Your task to perform on an android device: Open maps Image 0: 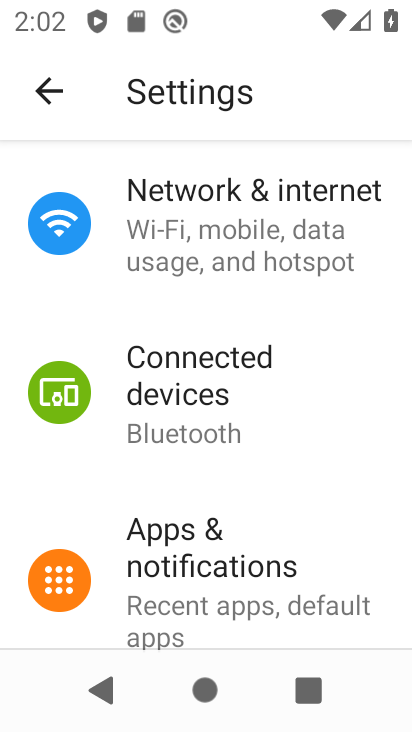
Step 0: press home button
Your task to perform on an android device: Open maps Image 1: 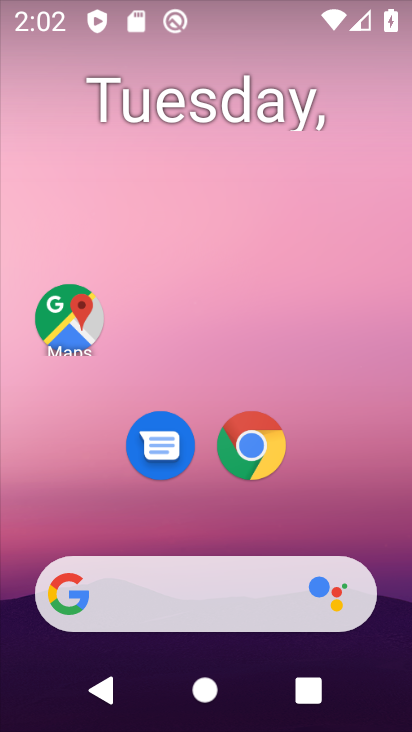
Step 1: click (45, 324)
Your task to perform on an android device: Open maps Image 2: 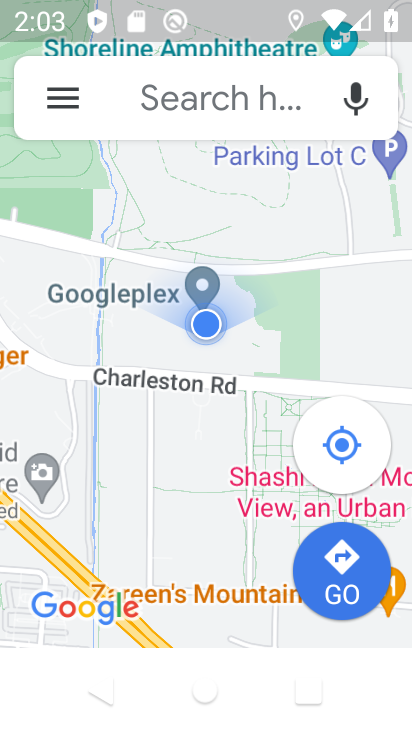
Step 2: task complete